Your task to perform on an android device: all mails in gmail Image 0: 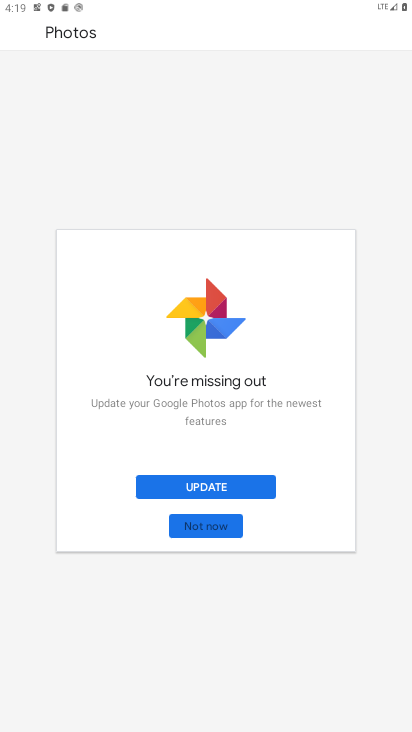
Step 0: press home button
Your task to perform on an android device: all mails in gmail Image 1: 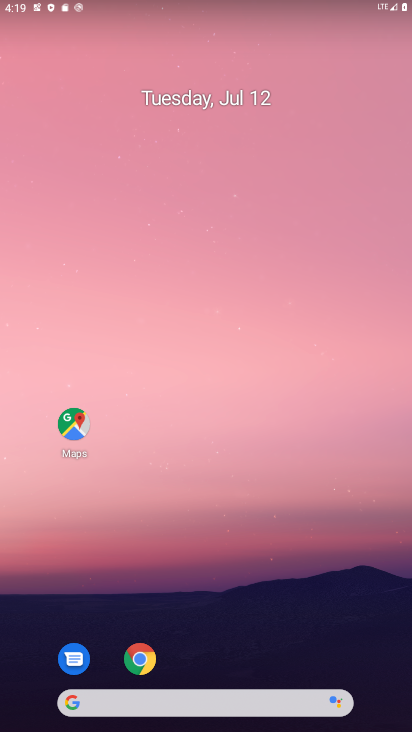
Step 1: drag from (232, 727) to (227, 321)
Your task to perform on an android device: all mails in gmail Image 2: 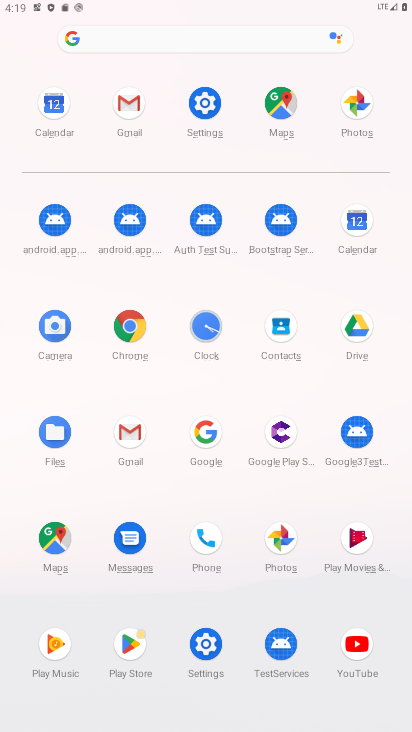
Step 2: click (129, 435)
Your task to perform on an android device: all mails in gmail Image 3: 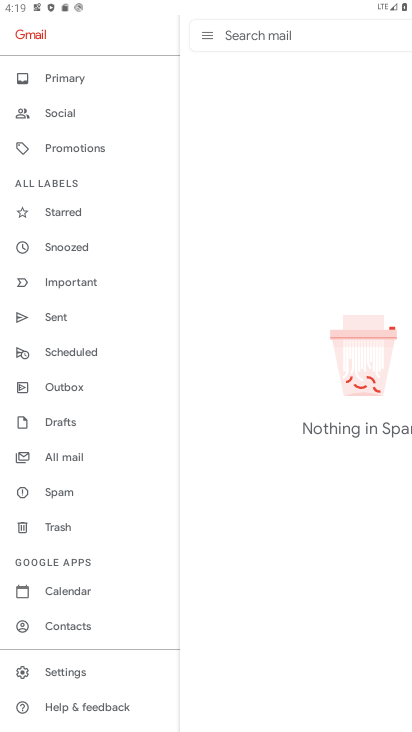
Step 3: click (60, 451)
Your task to perform on an android device: all mails in gmail Image 4: 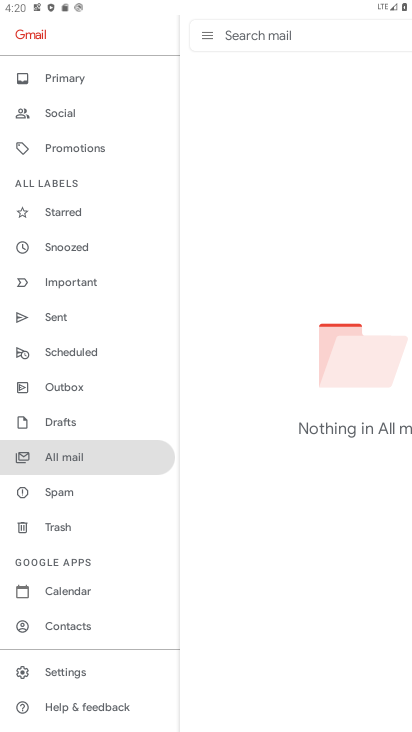
Step 4: task complete